Your task to perform on an android device: toggle notification dots Image 0: 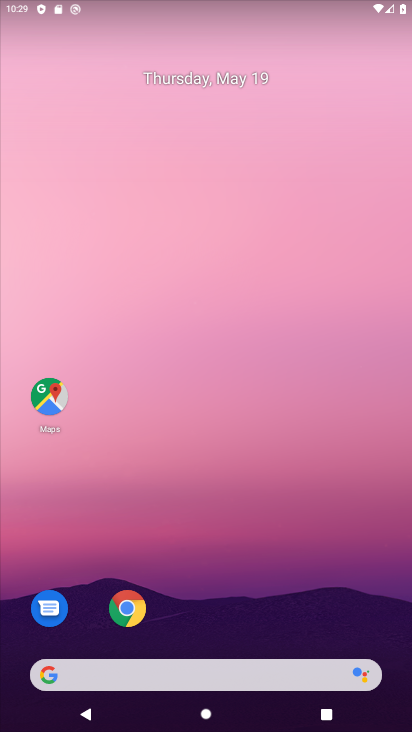
Step 0: drag from (389, 651) to (328, 112)
Your task to perform on an android device: toggle notification dots Image 1: 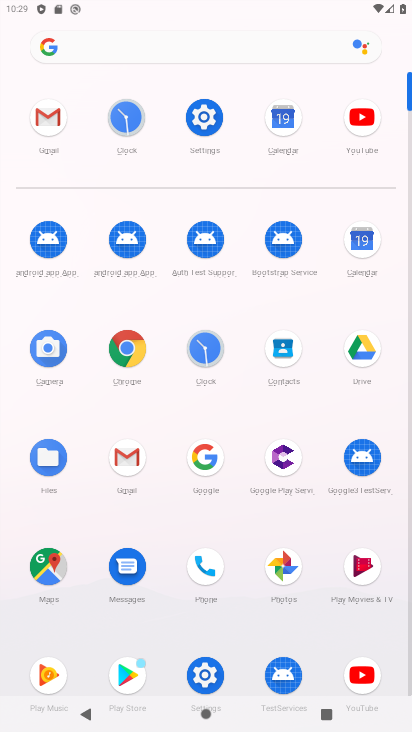
Step 1: click (214, 125)
Your task to perform on an android device: toggle notification dots Image 2: 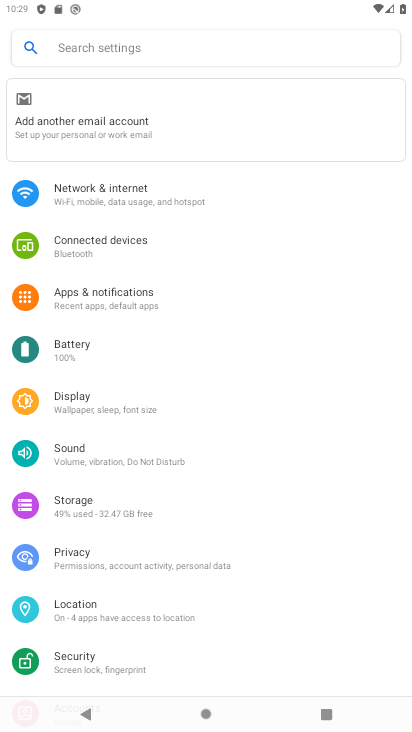
Step 2: click (73, 211)
Your task to perform on an android device: toggle notification dots Image 3: 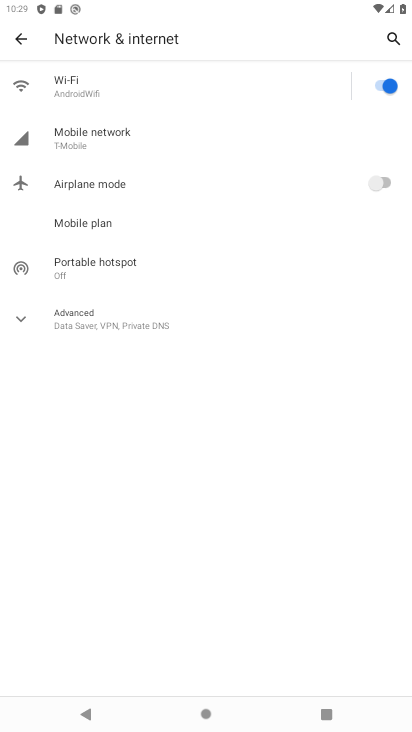
Step 3: press back button
Your task to perform on an android device: toggle notification dots Image 4: 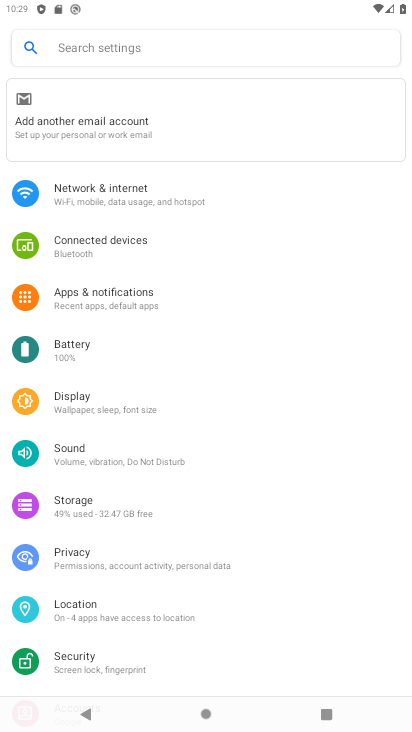
Step 4: click (65, 296)
Your task to perform on an android device: toggle notification dots Image 5: 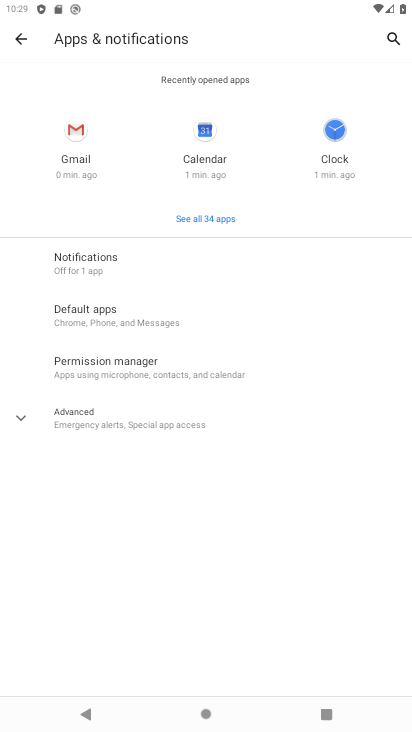
Step 5: click (77, 259)
Your task to perform on an android device: toggle notification dots Image 6: 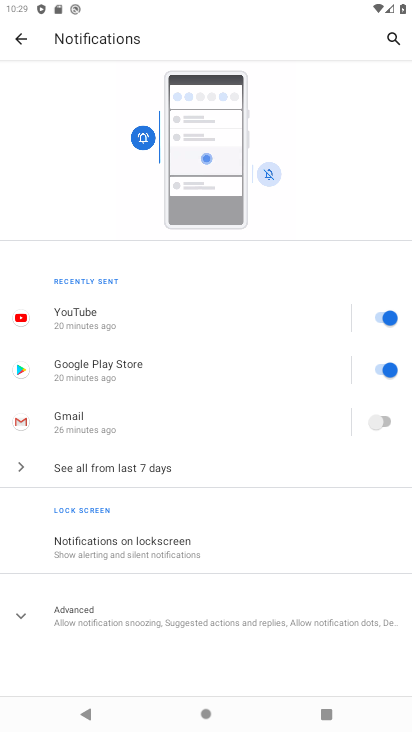
Step 6: drag from (255, 576) to (266, 422)
Your task to perform on an android device: toggle notification dots Image 7: 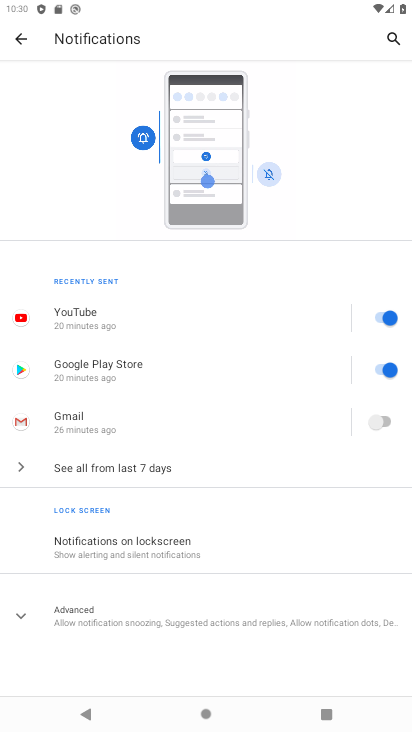
Step 7: click (25, 613)
Your task to perform on an android device: toggle notification dots Image 8: 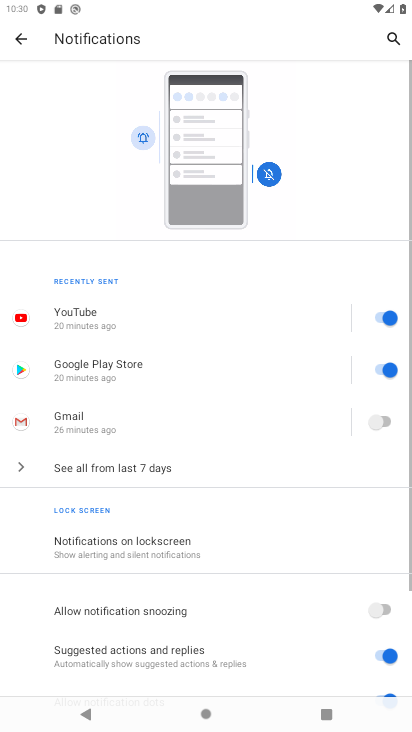
Step 8: drag from (265, 633) to (280, 293)
Your task to perform on an android device: toggle notification dots Image 9: 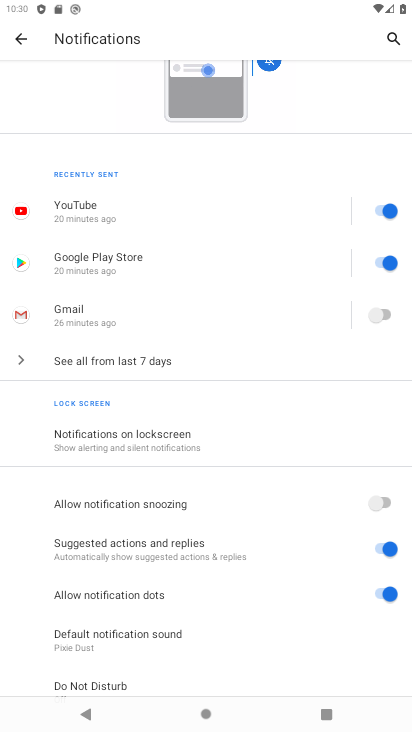
Step 9: click (379, 591)
Your task to perform on an android device: toggle notification dots Image 10: 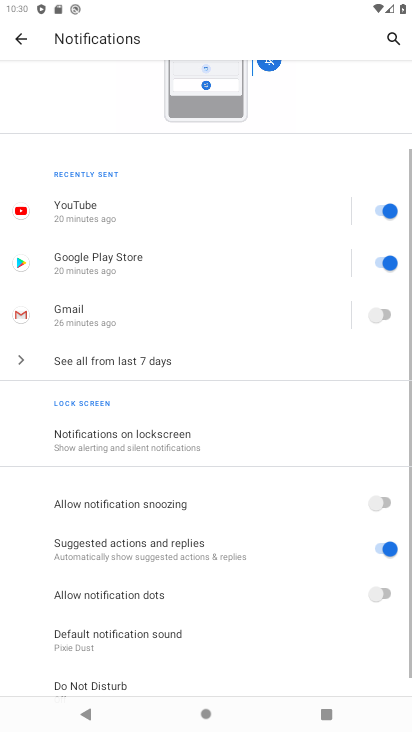
Step 10: task complete